Your task to perform on an android device: turn on sleep mode Image 0: 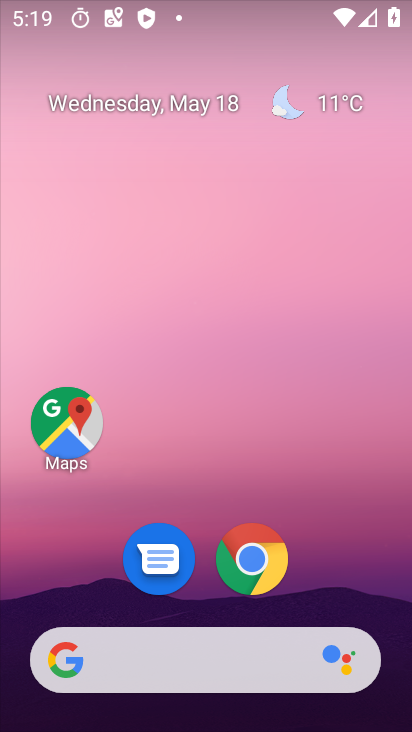
Step 0: drag from (207, 506) to (296, 19)
Your task to perform on an android device: turn on sleep mode Image 1: 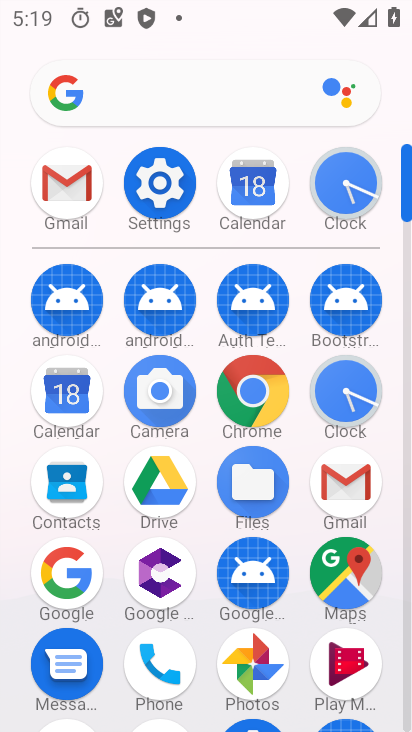
Step 1: click (165, 169)
Your task to perform on an android device: turn on sleep mode Image 2: 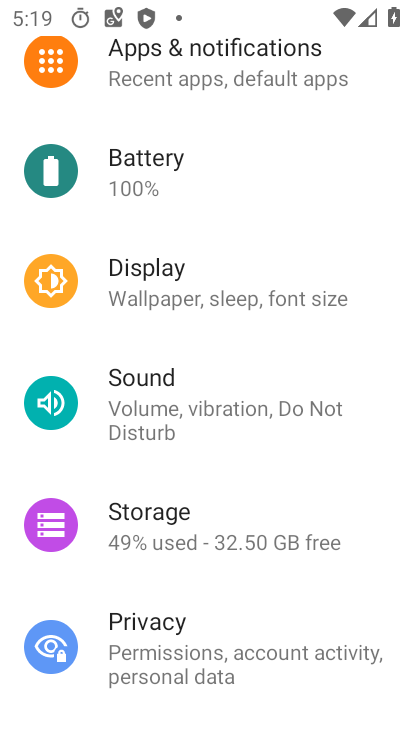
Step 2: drag from (166, 658) to (214, 279)
Your task to perform on an android device: turn on sleep mode Image 3: 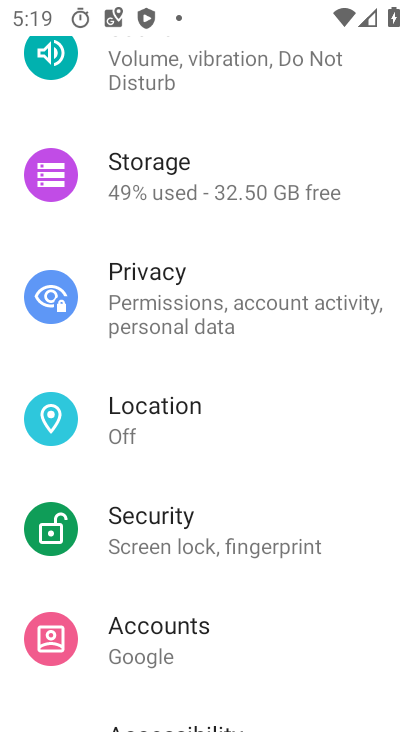
Step 3: drag from (230, 132) to (223, 731)
Your task to perform on an android device: turn on sleep mode Image 4: 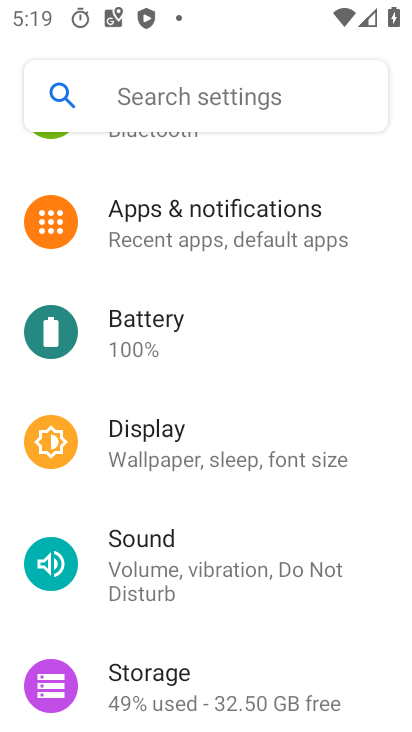
Step 4: click (141, 98)
Your task to perform on an android device: turn on sleep mode Image 5: 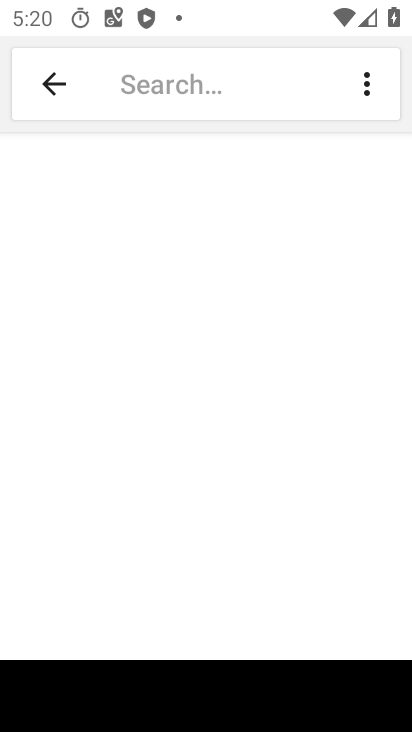
Step 5: type "sleep mode"
Your task to perform on an android device: turn on sleep mode Image 6: 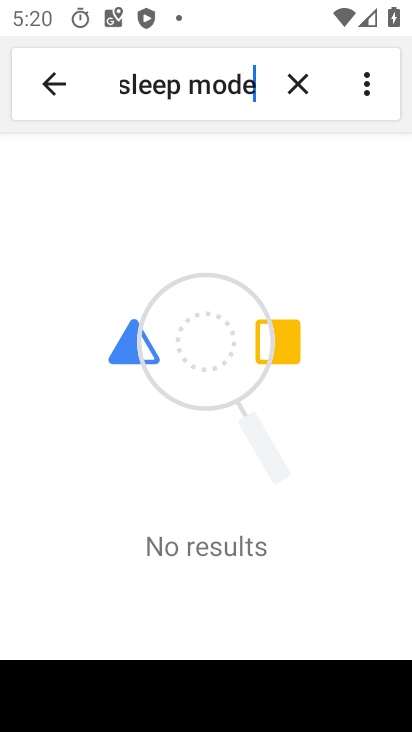
Step 6: task complete